Your task to perform on an android device: read, delete, or share a saved page in the chrome app Image 0: 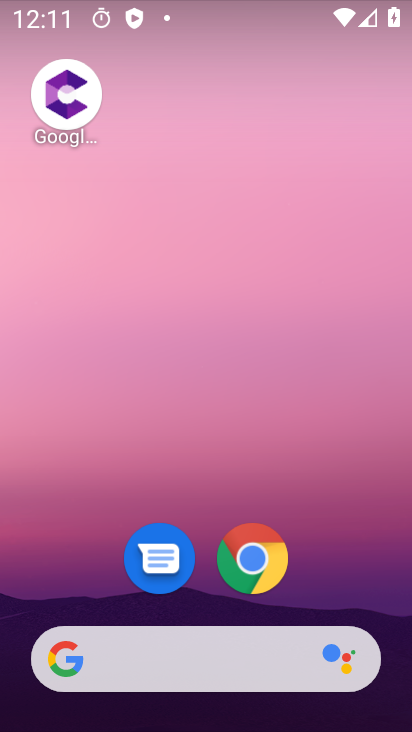
Step 0: drag from (369, 590) to (353, 243)
Your task to perform on an android device: read, delete, or share a saved page in the chrome app Image 1: 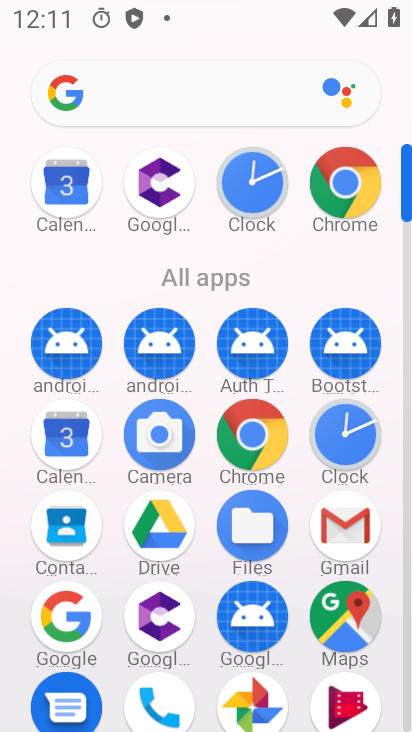
Step 1: click (272, 430)
Your task to perform on an android device: read, delete, or share a saved page in the chrome app Image 2: 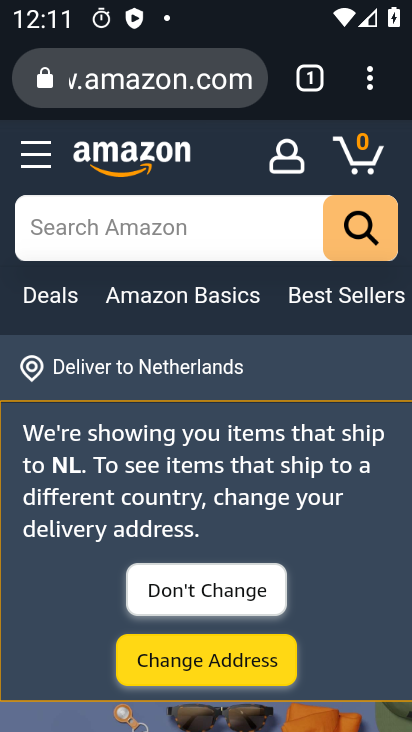
Step 2: click (369, 90)
Your task to perform on an android device: read, delete, or share a saved page in the chrome app Image 3: 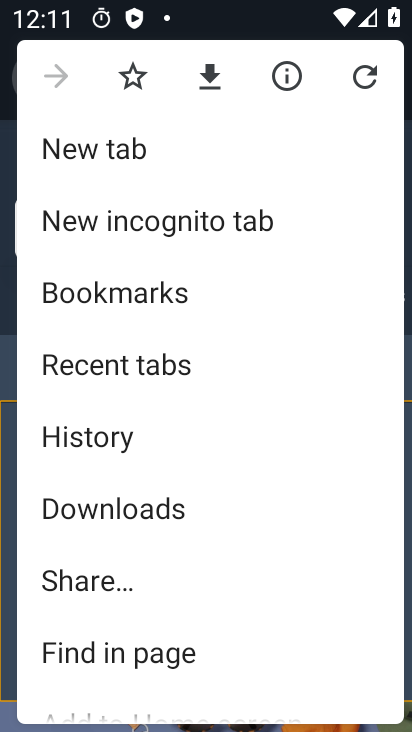
Step 3: drag from (328, 428) to (330, 331)
Your task to perform on an android device: read, delete, or share a saved page in the chrome app Image 4: 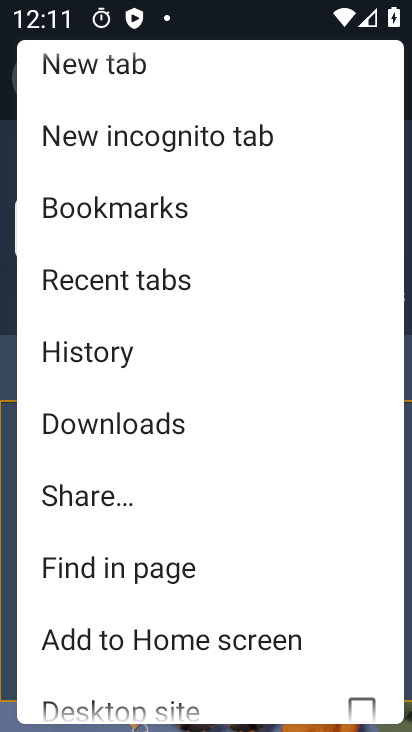
Step 4: drag from (314, 490) to (325, 318)
Your task to perform on an android device: read, delete, or share a saved page in the chrome app Image 5: 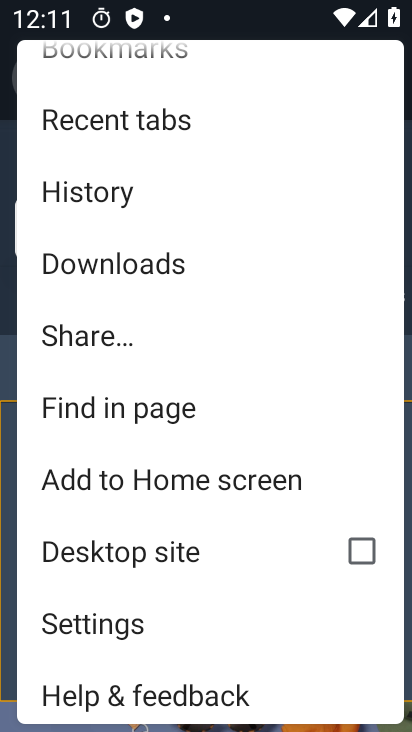
Step 5: drag from (293, 532) to (290, 311)
Your task to perform on an android device: read, delete, or share a saved page in the chrome app Image 6: 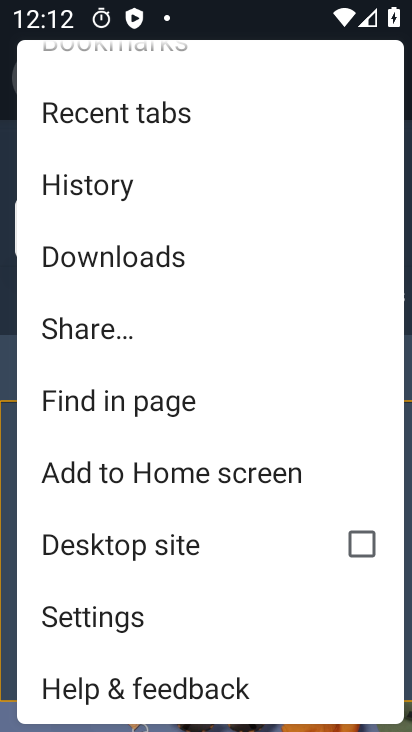
Step 6: drag from (286, 318) to (300, 577)
Your task to perform on an android device: read, delete, or share a saved page in the chrome app Image 7: 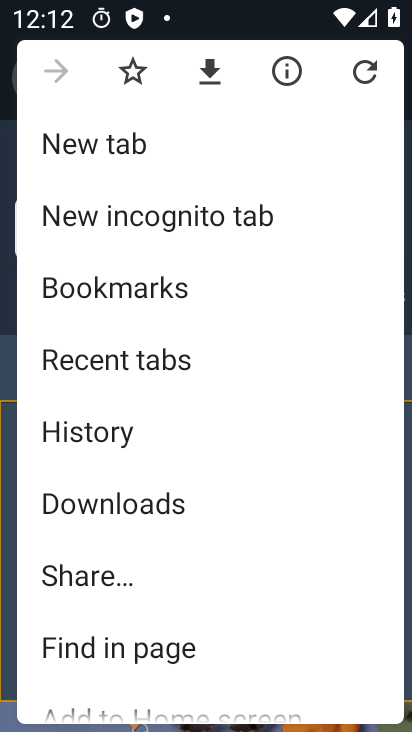
Step 7: click (170, 511)
Your task to perform on an android device: read, delete, or share a saved page in the chrome app Image 8: 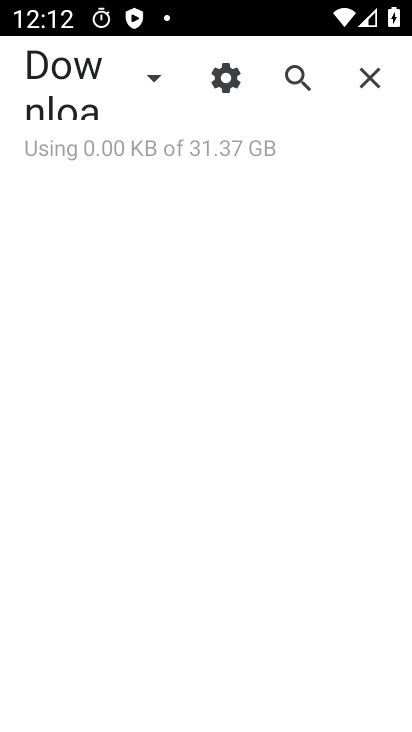
Step 8: click (149, 76)
Your task to perform on an android device: read, delete, or share a saved page in the chrome app Image 9: 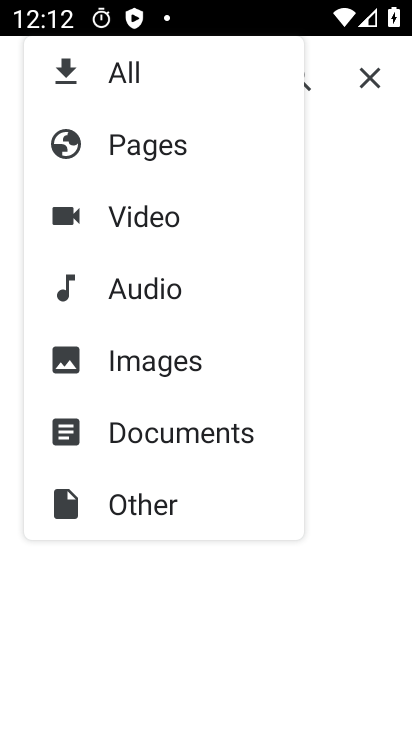
Step 9: click (136, 143)
Your task to perform on an android device: read, delete, or share a saved page in the chrome app Image 10: 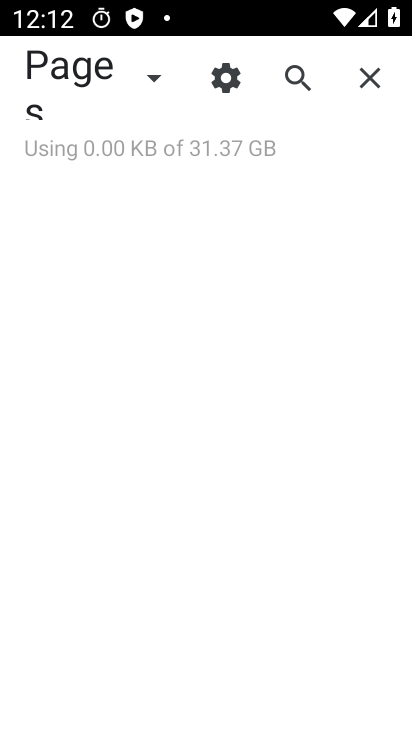
Step 10: task complete